Your task to perform on an android device: Open settings Image 0: 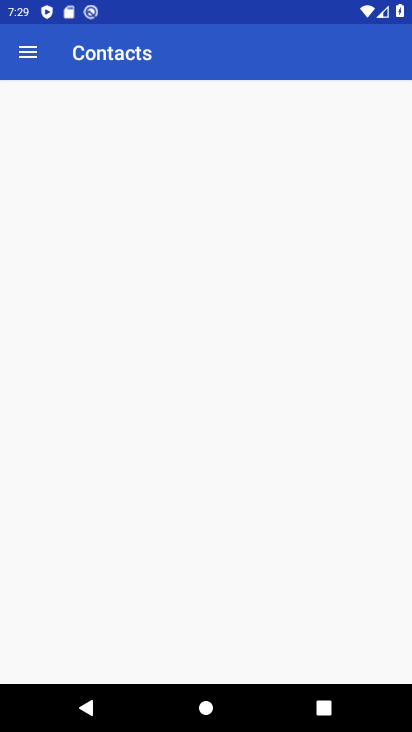
Step 0: drag from (185, 581) to (298, 83)
Your task to perform on an android device: Open settings Image 1: 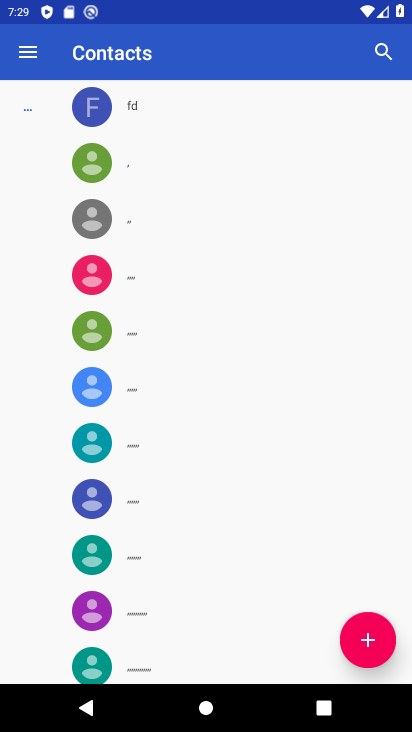
Step 1: press back button
Your task to perform on an android device: Open settings Image 2: 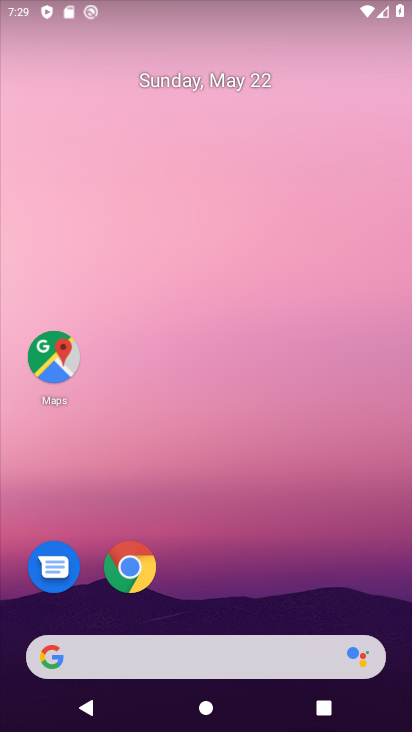
Step 2: drag from (332, 592) to (384, 73)
Your task to perform on an android device: Open settings Image 3: 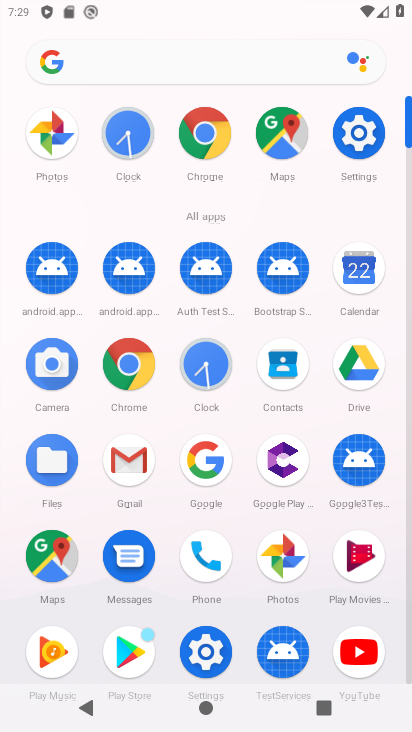
Step 3: click (341, 140)
Your task to perform on an android device: Open settings Image 4: 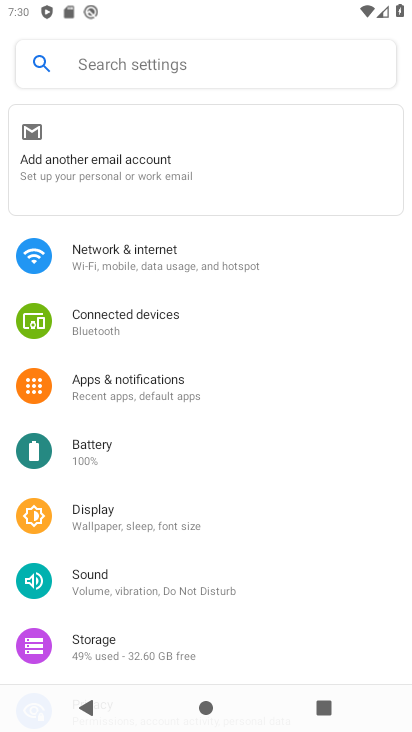
Step 4: task complete